Your task to perform on an android device: install app "LiveIn - Share Your Moment" Image 0: 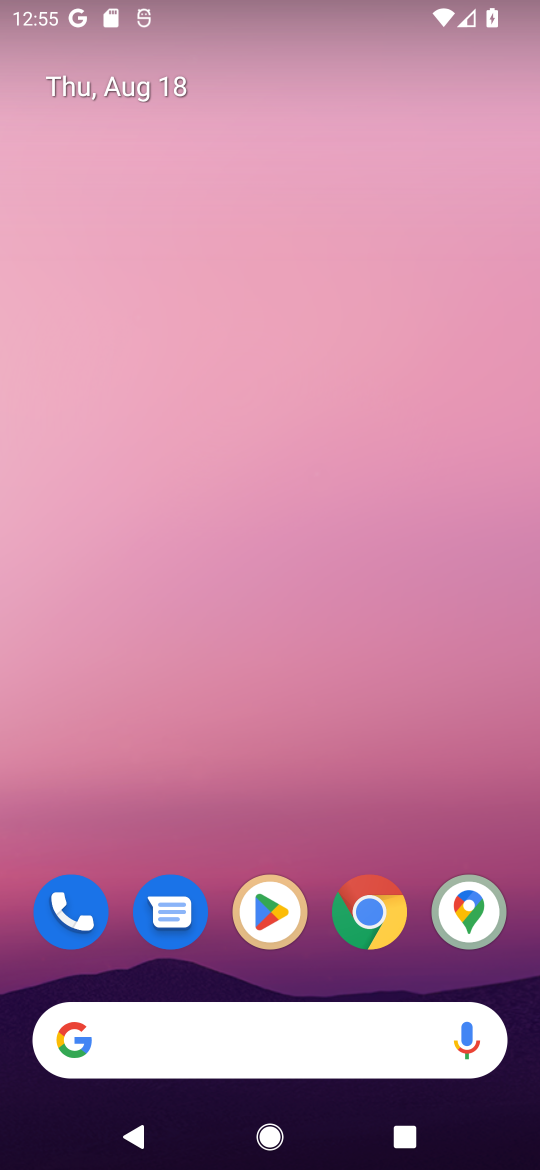
Step 0: click (265, 903)
Your task to perform on an android device: install app "LiveIn - Share Your Moment" Image 1: 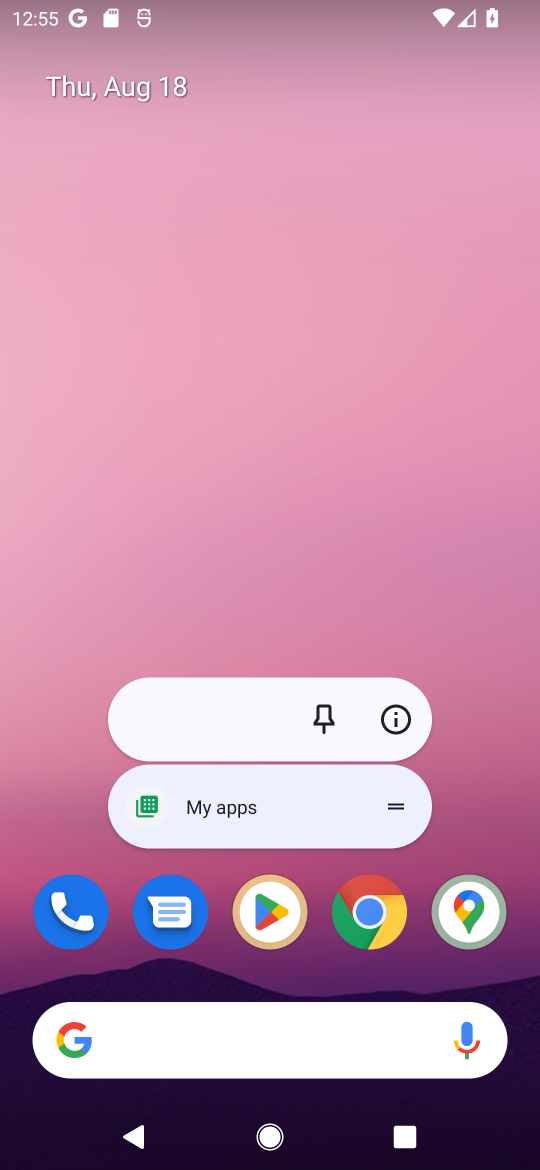
Step 1: click (261, 912)
Your task to perform on an android device: install app "LiveIn - Share Your Moment" Image 2: 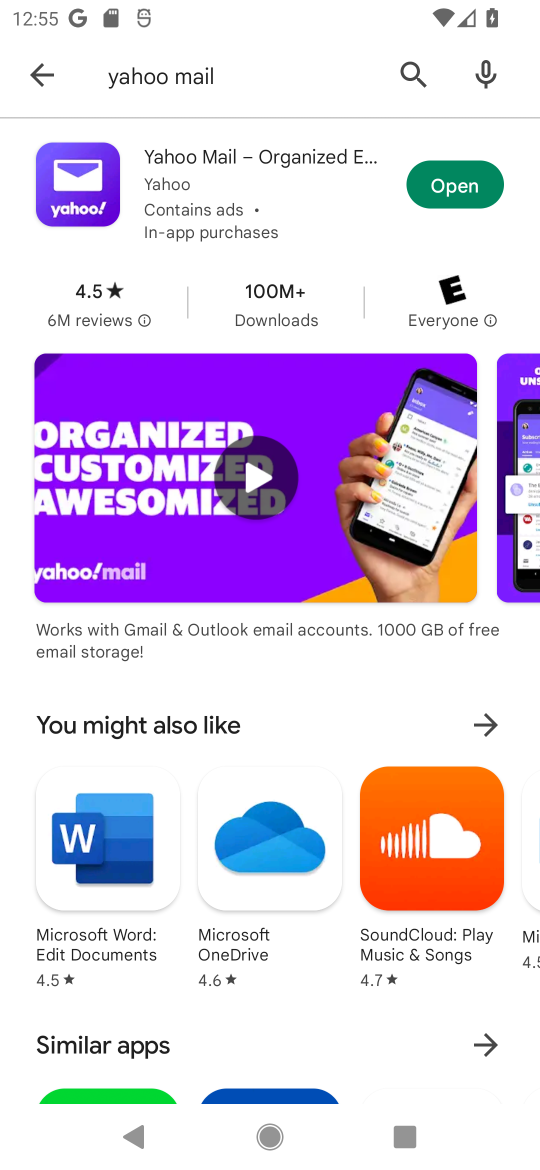
Step 2: click (413, 68)
Your task to perform on an android device: install app "LiveIn - Share Your Moment" Image 3: 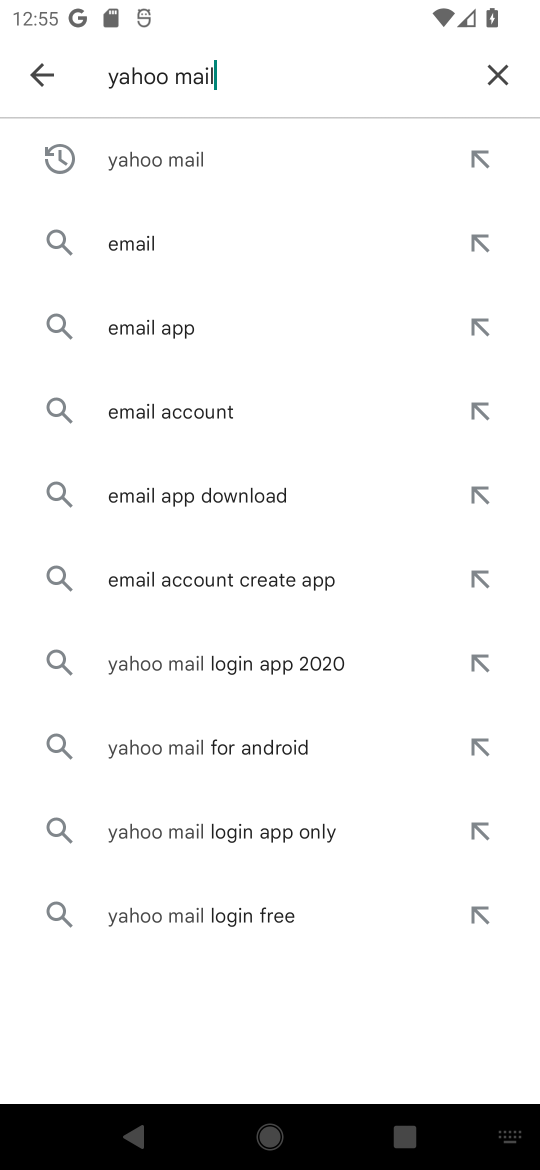
Step 3: click (495, 77)
Your task to perform on an android device: install app "LiveIn - Share Your Moment" Image 4: 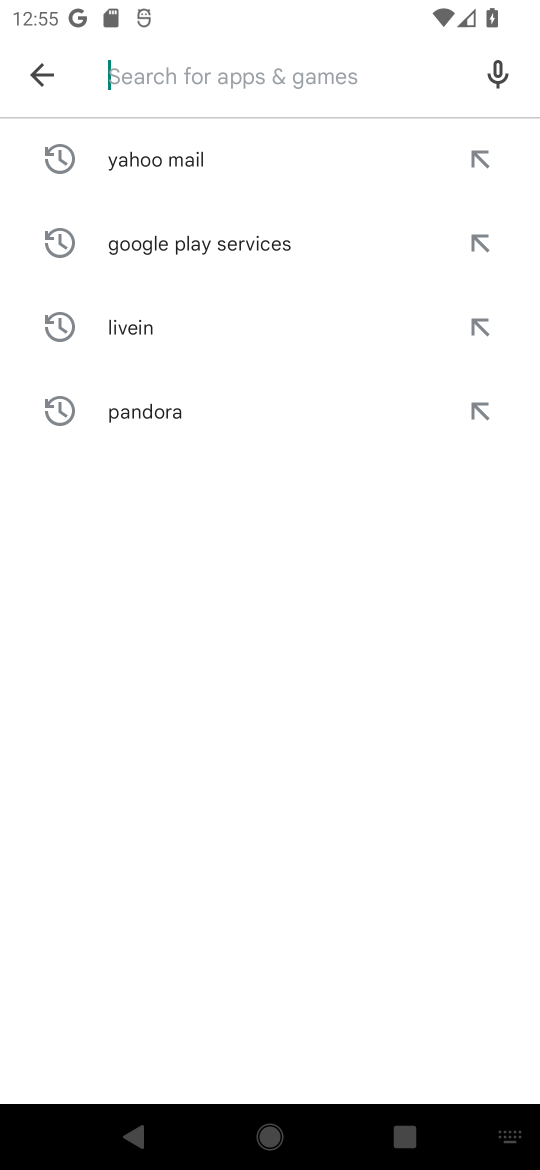
Step 4: click (191, 73)
Your task to perform on an android device: install app "LiveIn - Share Your Moment" Image 5: 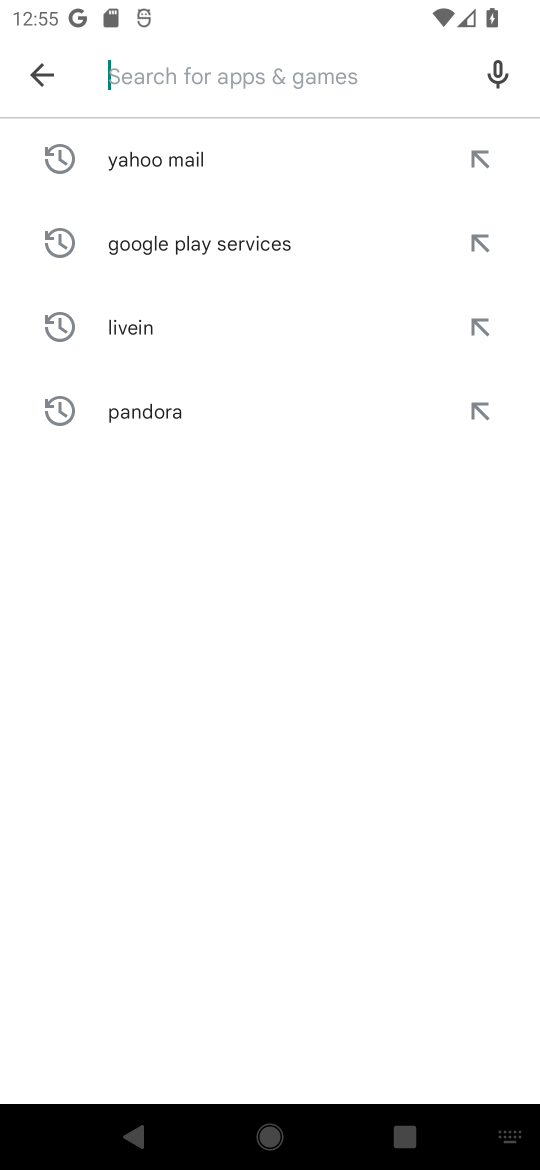
Step 5: type "LiveIn"
Your task to perform on an android device: install app "LiveIn - Share Your Moment" Image 6: 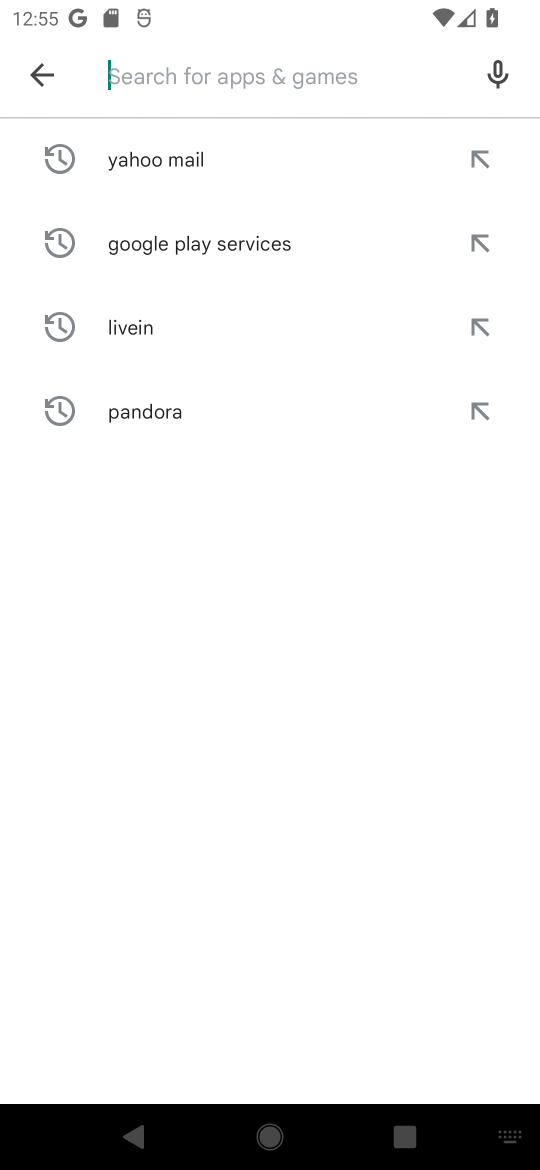
Step 6: click (256, 665)
Your task to perform on an android device: install app "LiveIn - Share Your Moment" Image 7: 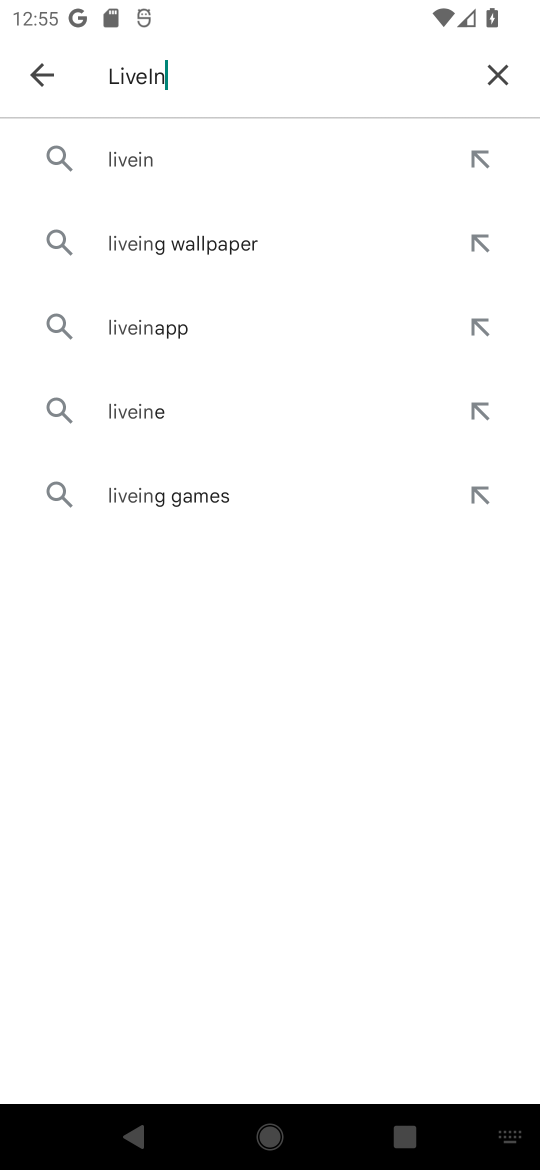
Step 7: click (142, 160)
Your task to perform on an android device: install app "LiveIn - Share Your Moment" Image 8: 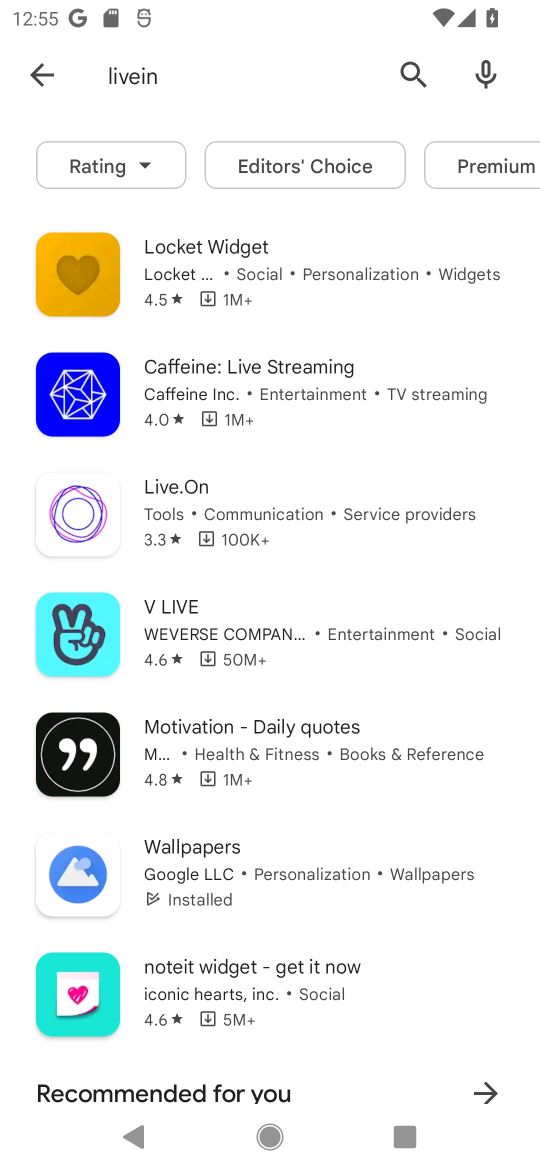
Step 8: task complete